Your task to perform on an android device: turn off smart reply in the gmail app Image 0: 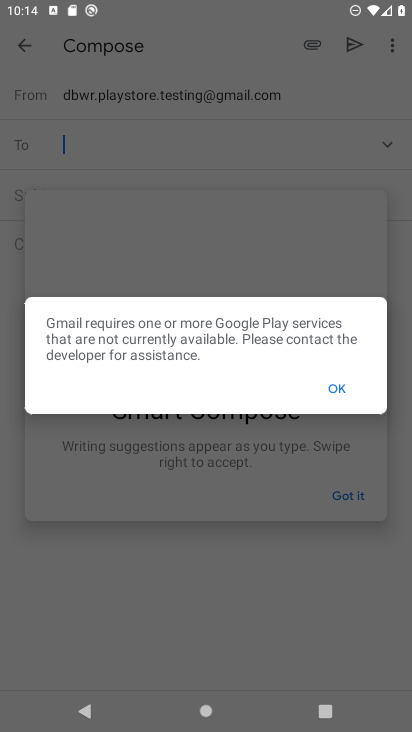
Step 0: press home button
Your task to perform on an android device: turn off smart reply in the gmail app Image 1: 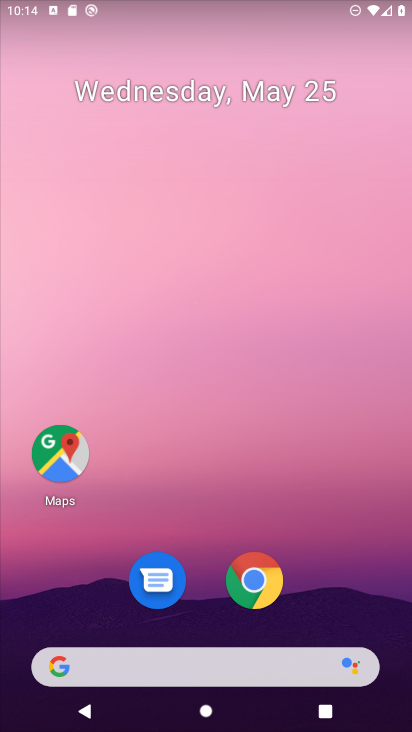
Step 1: drag from (5, 564) to (242, 45)
Your task to perform on an android device: turn off smart reply in the gmail app Image 2: 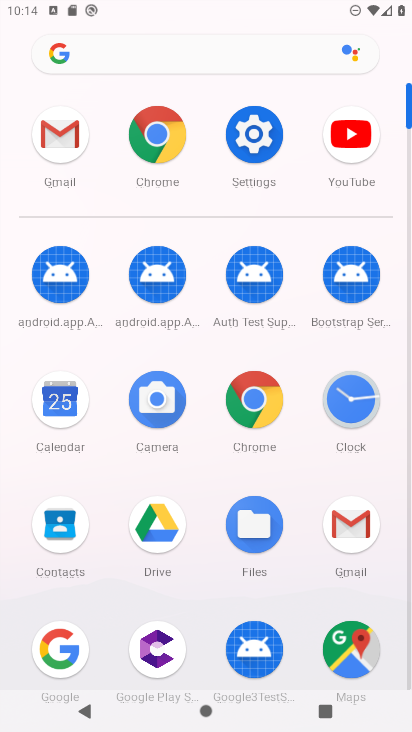
Step 2: click (358, 524)
Your task to perform on an android device: turn off smart reply in the gmail app Image 3: 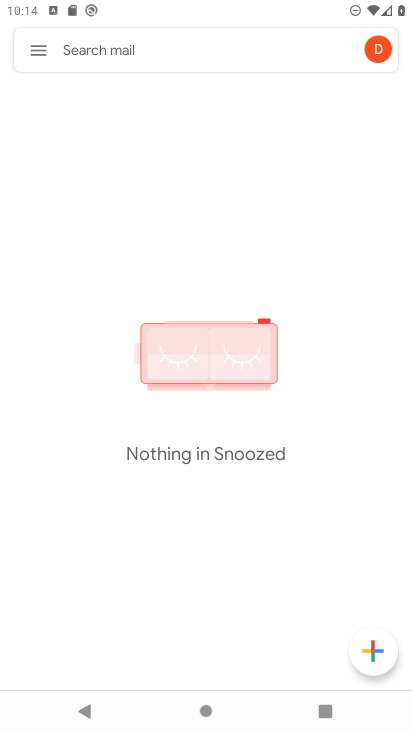
Step 3: click (42, 49)
Your task to perform on an android device: turn off smart reply in the gmail app Image 4: 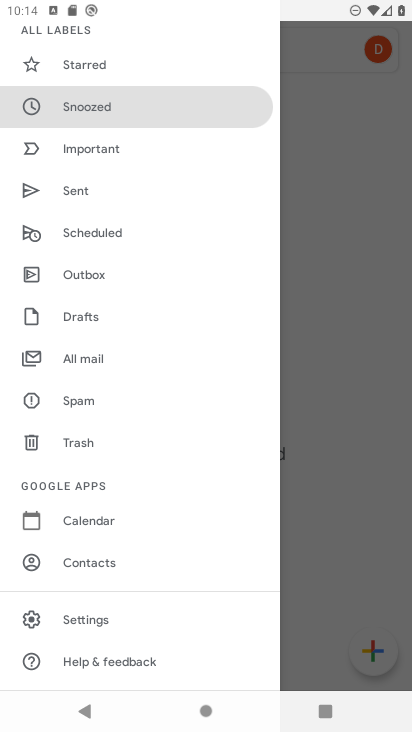
Step 4: click (46, 614)
Your task to perform on an android device: turn off smart reply in the gmail app Image 5: 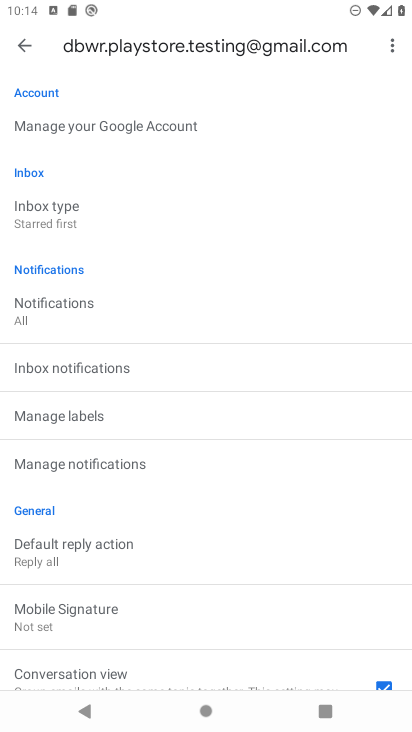
Step 5: click (85, 463)
Your task to perform on an android device: turn off smart reply in the gmail app Image 6: 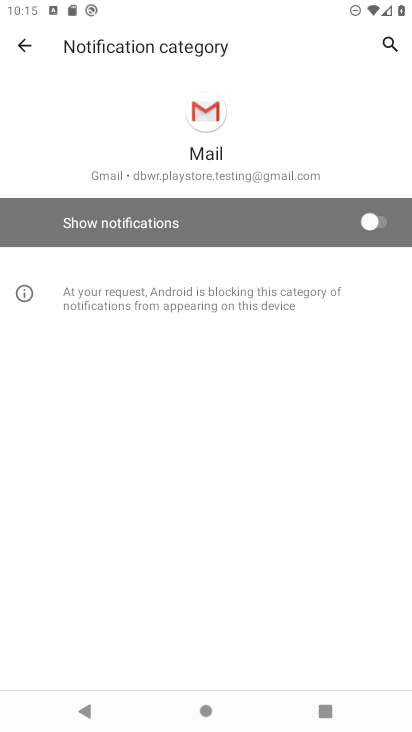
Step 6: task complete